Your task to perform on an android device: Do I have any events this weekend? Image 0: 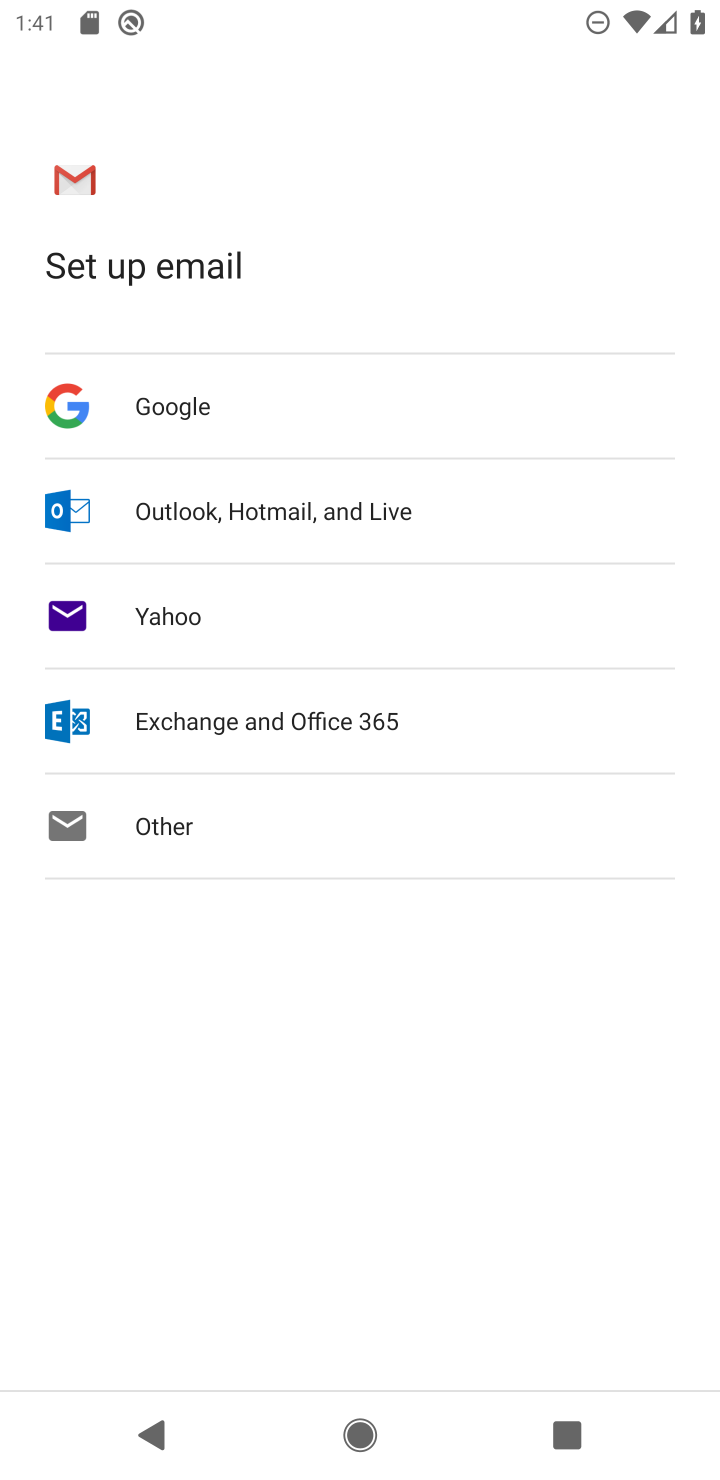
Step 0: press home button
Your task to perform on an android device: Do I have any events this weekend? Image 1: 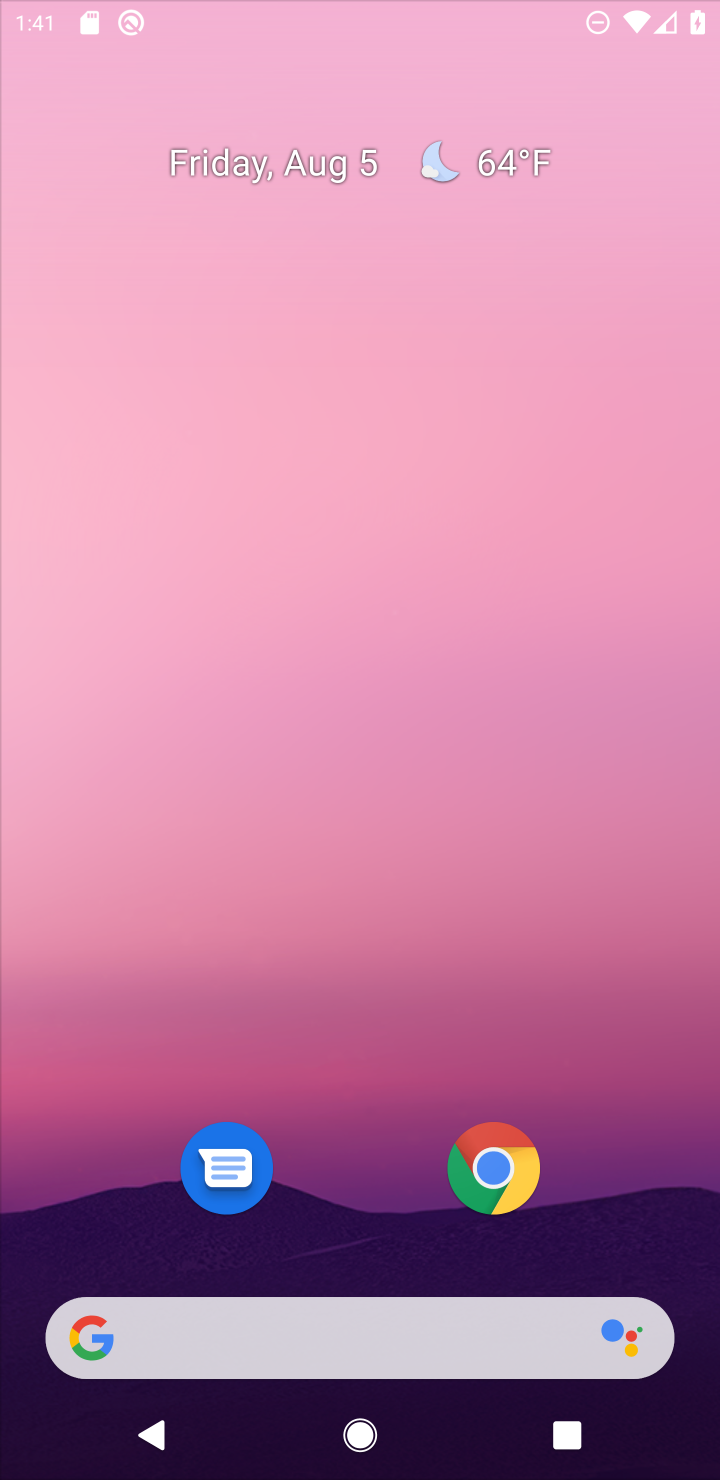
Step 1: drag from (672, 1326) to (335, 108)
Your task to perform on an android device: Do I have any events this weekend? Image 2: 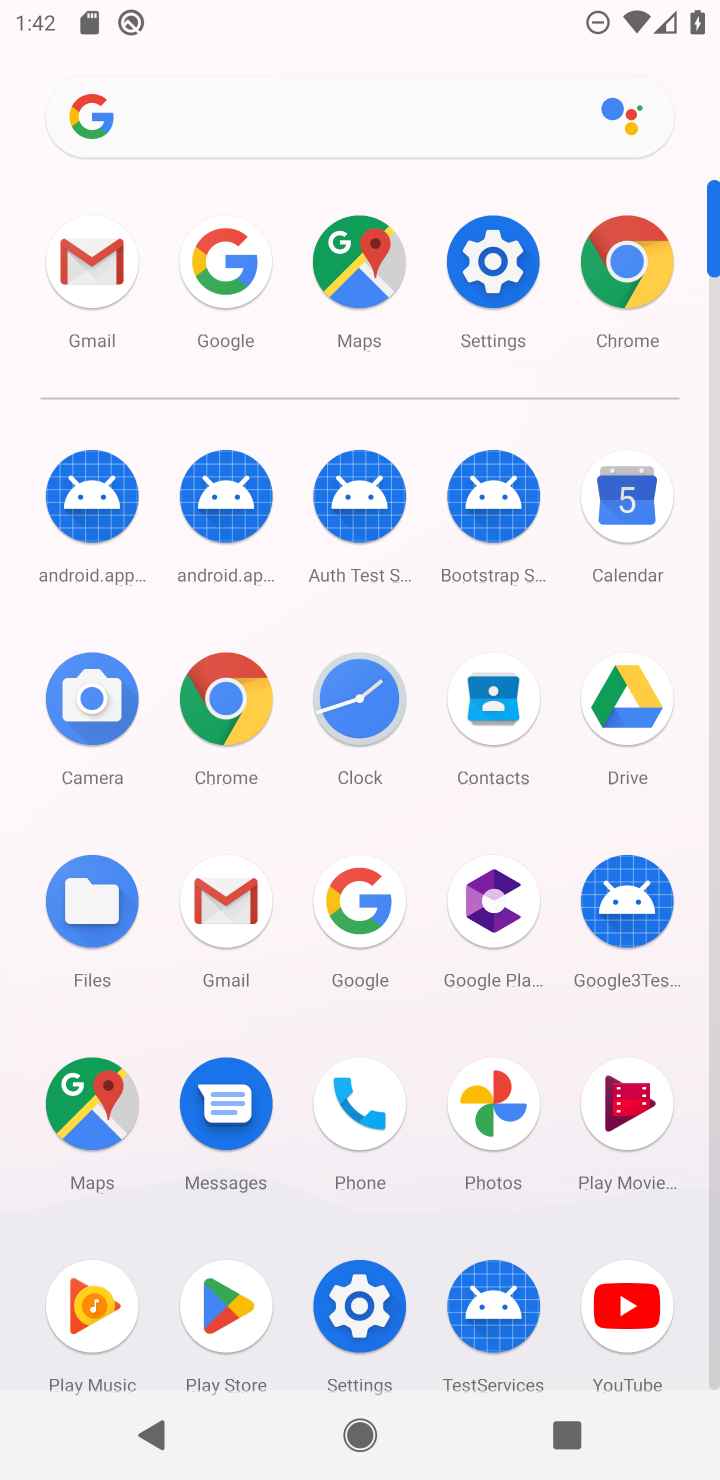
Step 2: click (623, 506)
Your task to perform on an android device: Do I have any events this weekend? Image 3: 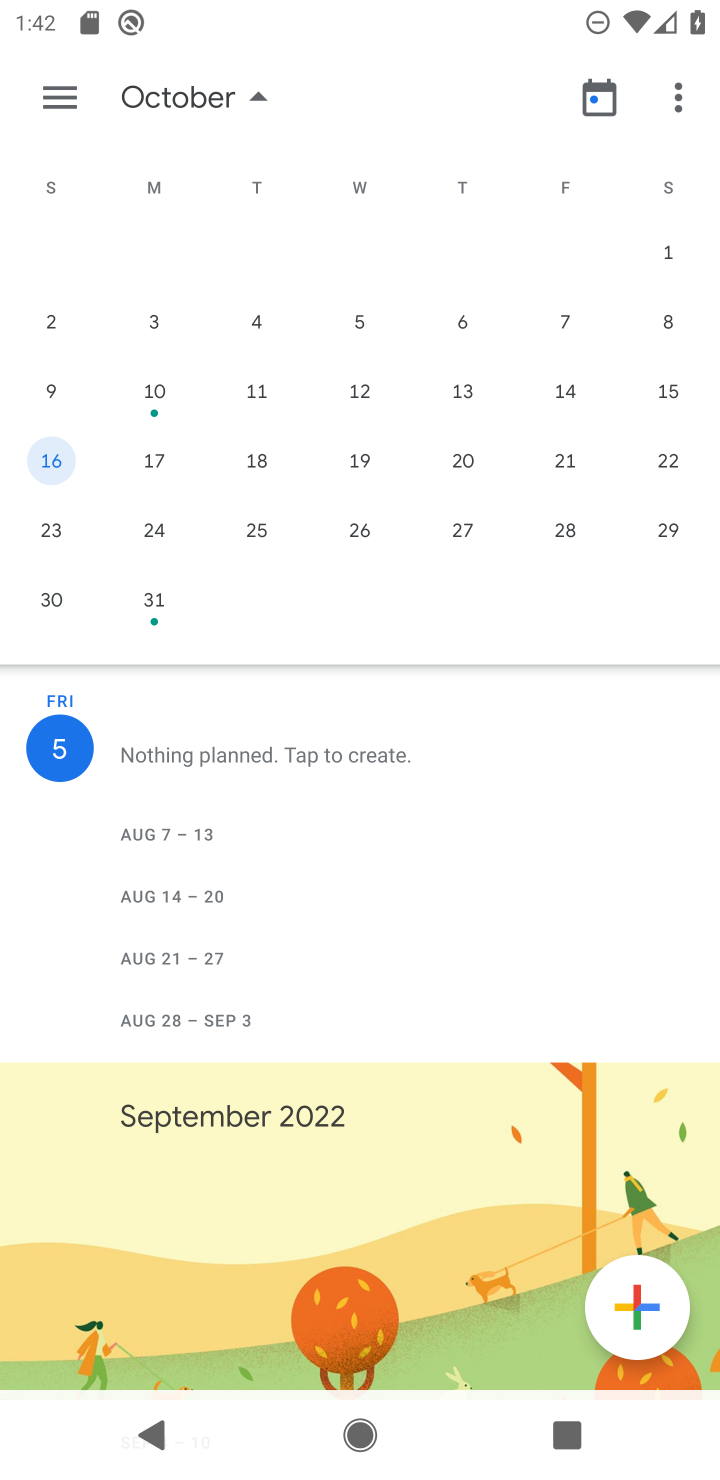
Step 3: task complete